Your task to perform on an android device: Add "sony triple a" to the cart on costco, then select checkout. Image 0: 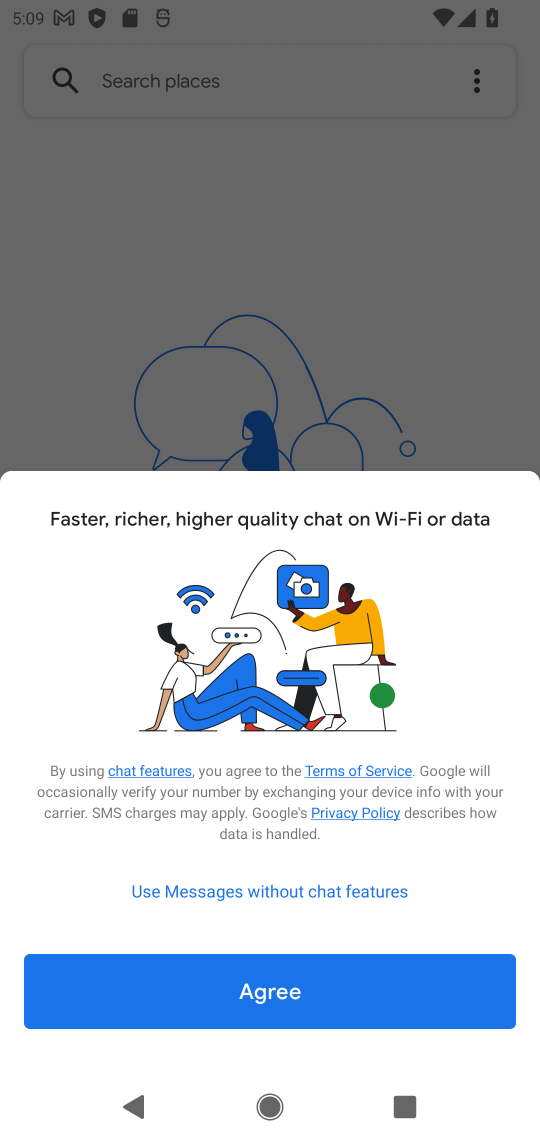
Step 0: press home button
Your task to perform on an android device: Add "sony triple a" to the cart on costco, then select checkout. Image 1: 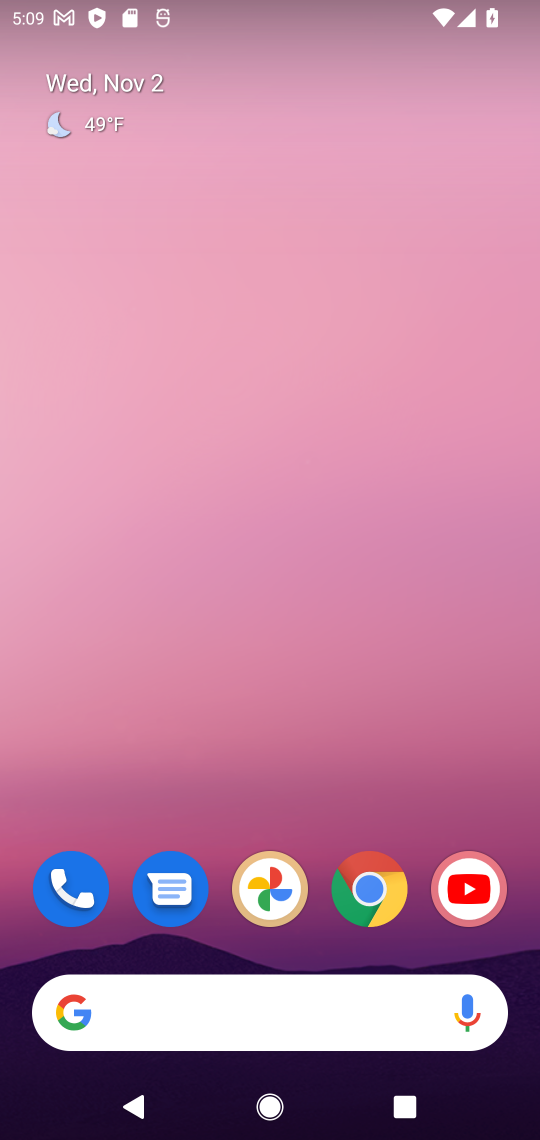
Step 1: click (375, 882)
Your task to perform on an android device: Add "sony triple a" to the cart on costco, then select checkout. Image 2: 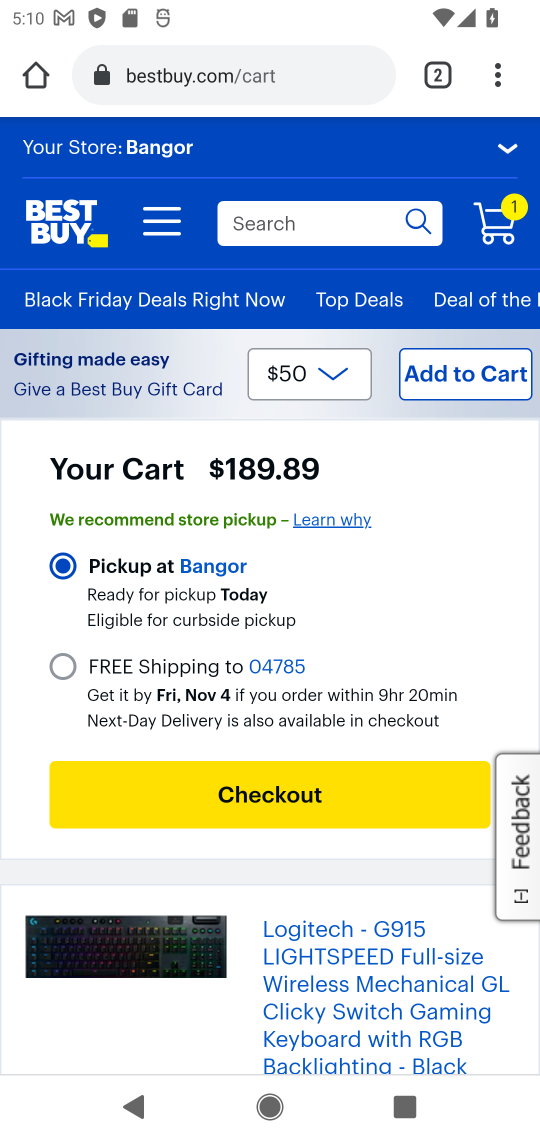
Step 2: click (240, 79)
Your task to perform on an android device: Add "sony triple a" to the cart on costco, then select checkout. Image 3: 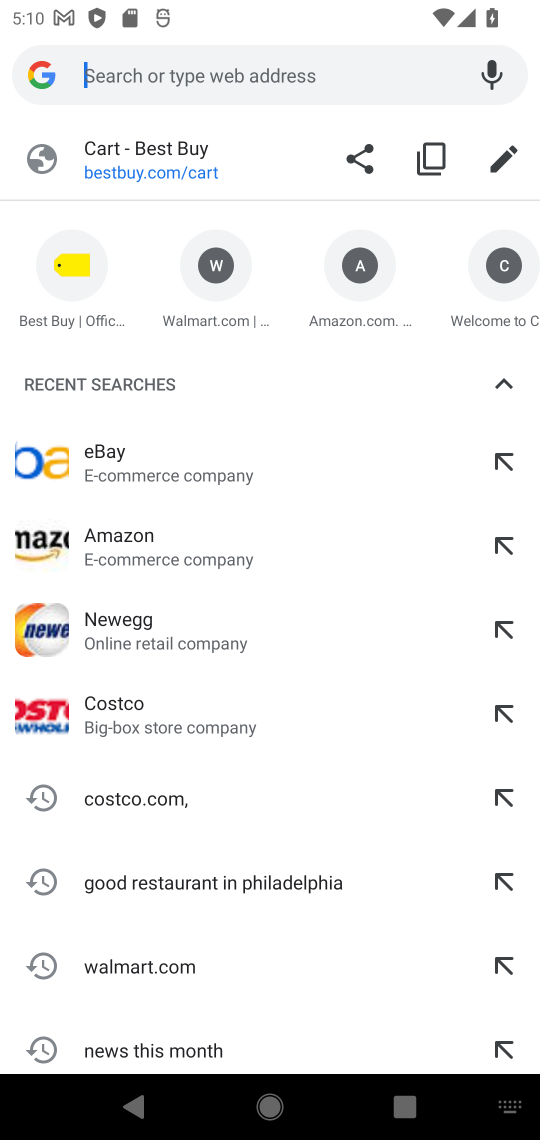
Step 3: type "costco"
Your task to perform on an android device: Add "sony triple a" to the cart on costco, then select checkout. Image 4: 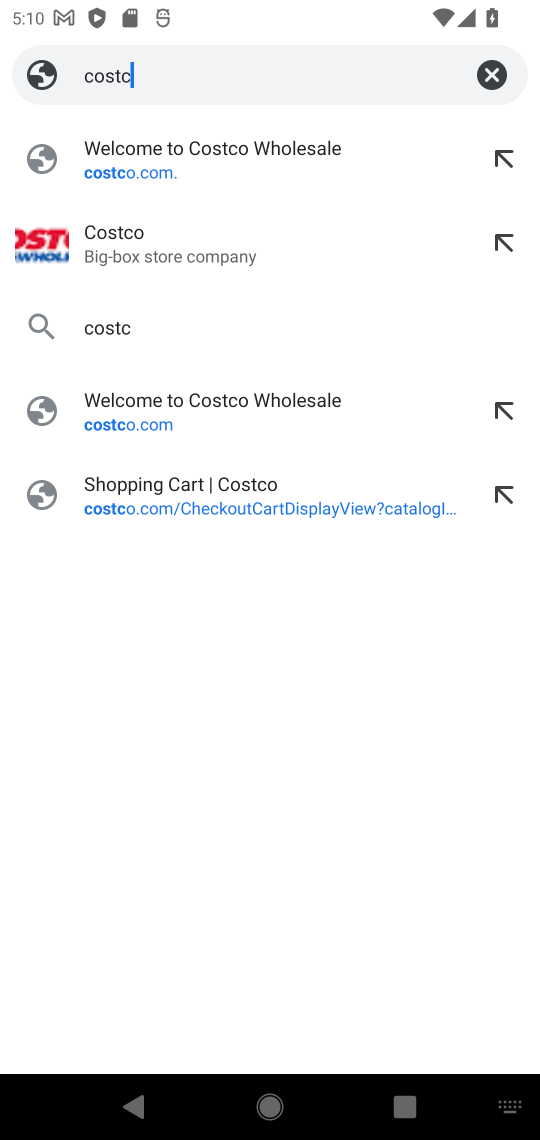
Step 4: press enter
Your task to perform on an android device: Add "sony triple a" to the cart on costco, then select checkout. Image 5: 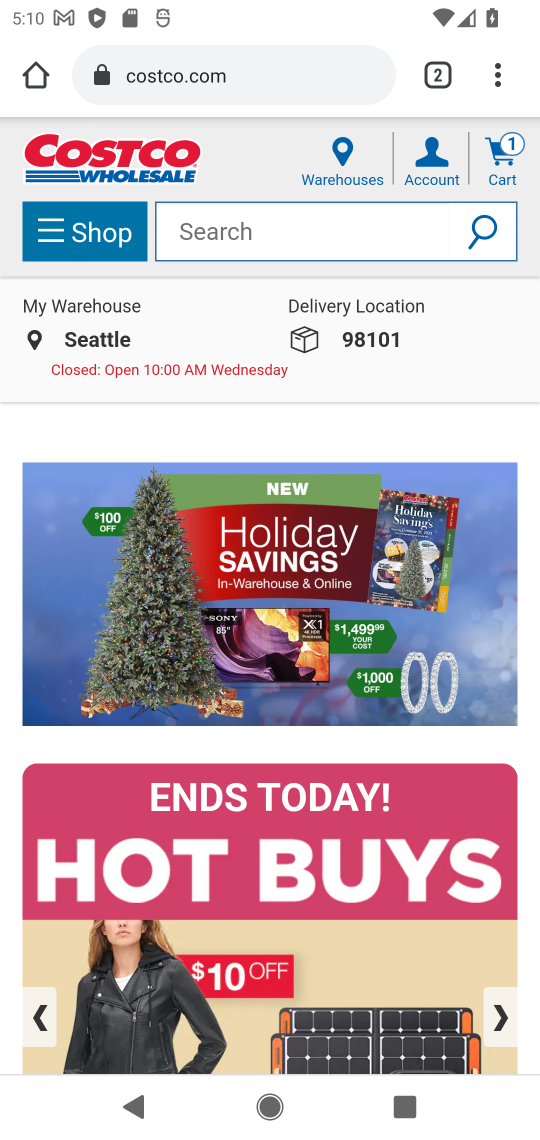
Step 5: click (203, 228)
Your task to perform on an android device: Add "sony triple a" to the cart on costco, then select checkout. Image 6: 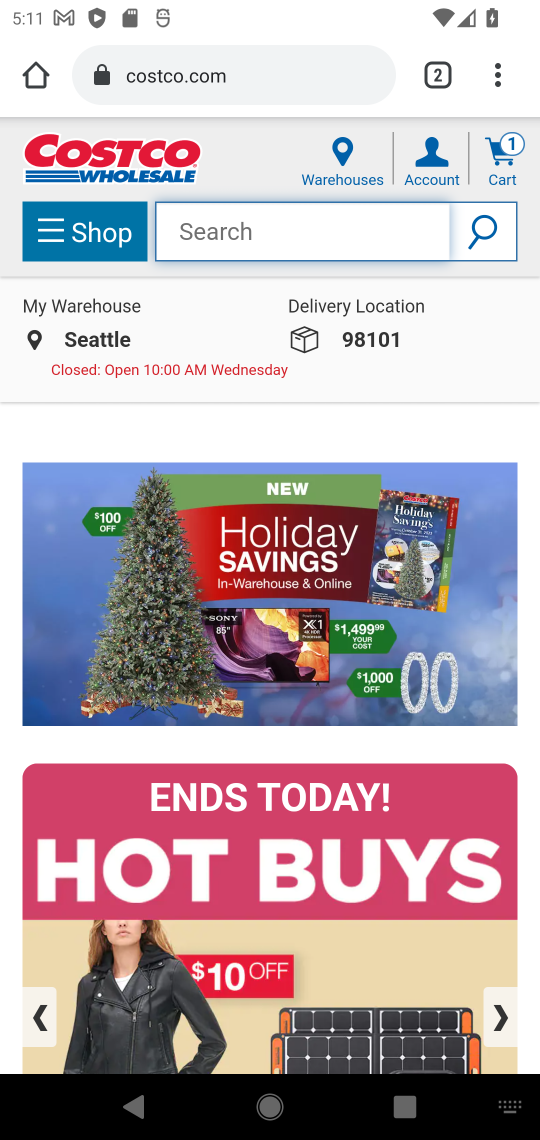
Step 6: type "sony triple a"
Your task to perform on an android device: Add "sony triple a" to the cart on costco, then select checkout. Image 7: 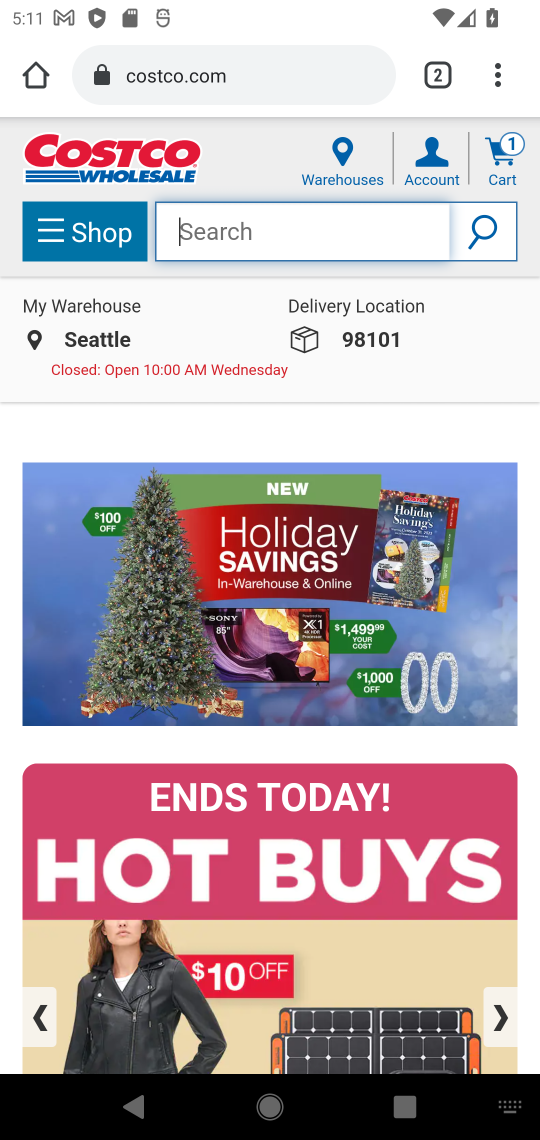
Step 7: press enter
Your task to perform on an android device: Add "sony triple a" to the cart on costco, then select checkout. Image 8: 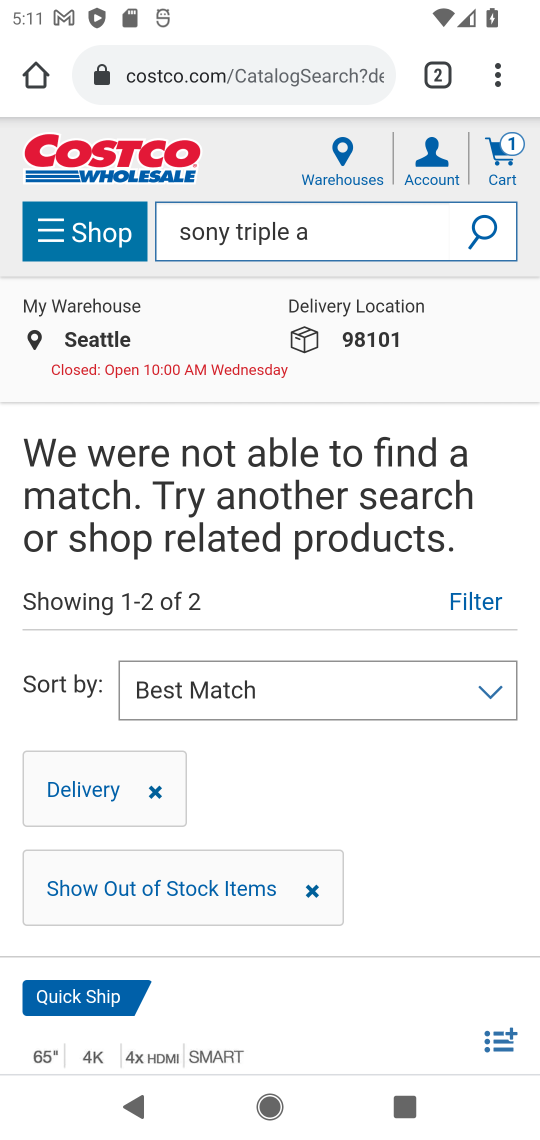
Step 8: task complete